Your task to perform on an android device: turn on priority inbox in the gmail app Image 0: 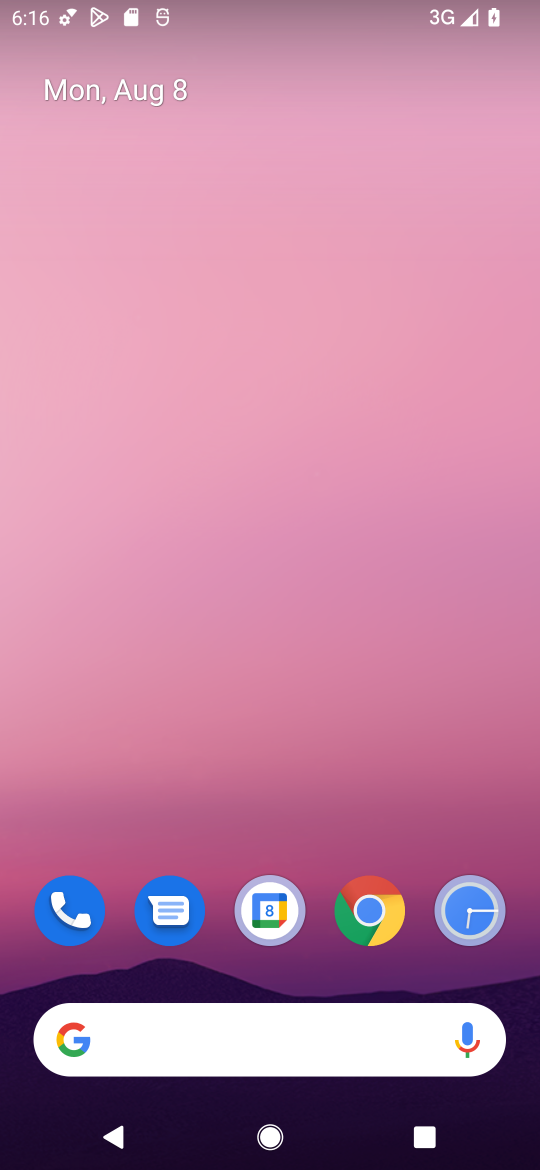
Step 0: drag from (276, 846) to (287, 83)
Your task to perform on an android device: turn on priority inbox in the gmail app Image 1: 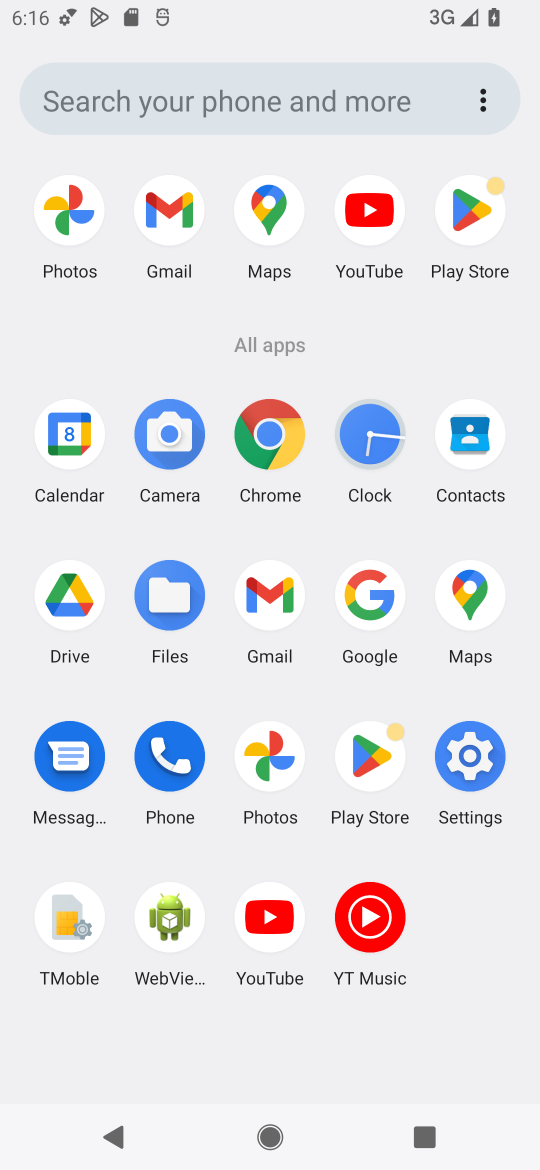
Step 1: click (157, 201)
Your task to perform on an android device: turn on priority inbox in the gmail app Image 2: 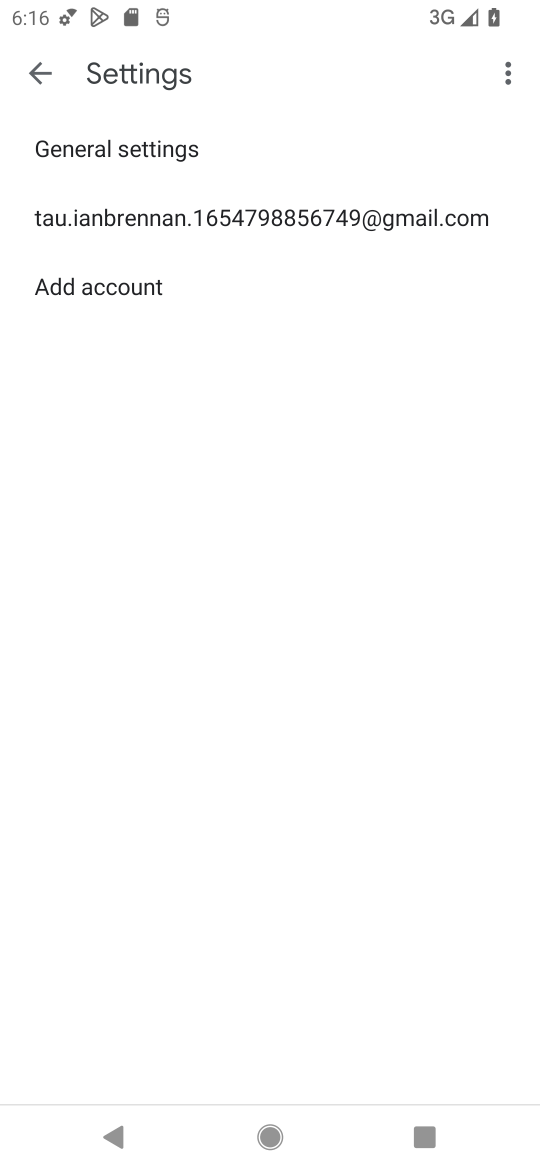
Step 2: click (39, 63)
Your task to perform on an android device: turn on priority inbox in the gmail app Image 3: 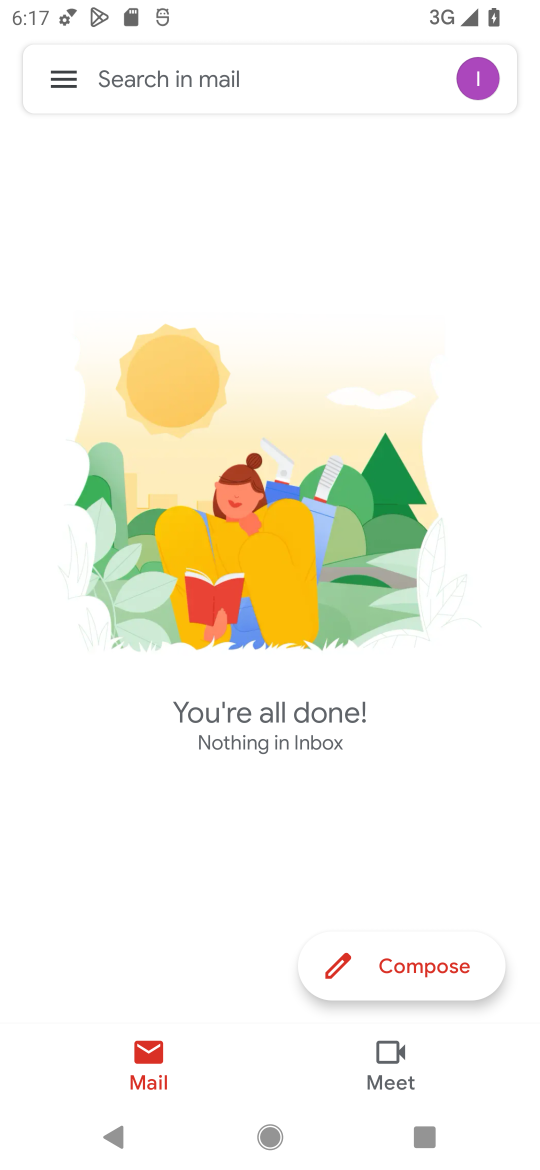
Step 3: click (74, 87)
Your task to perform on an android device: turn on priority inbox in the gmail app Image 4: 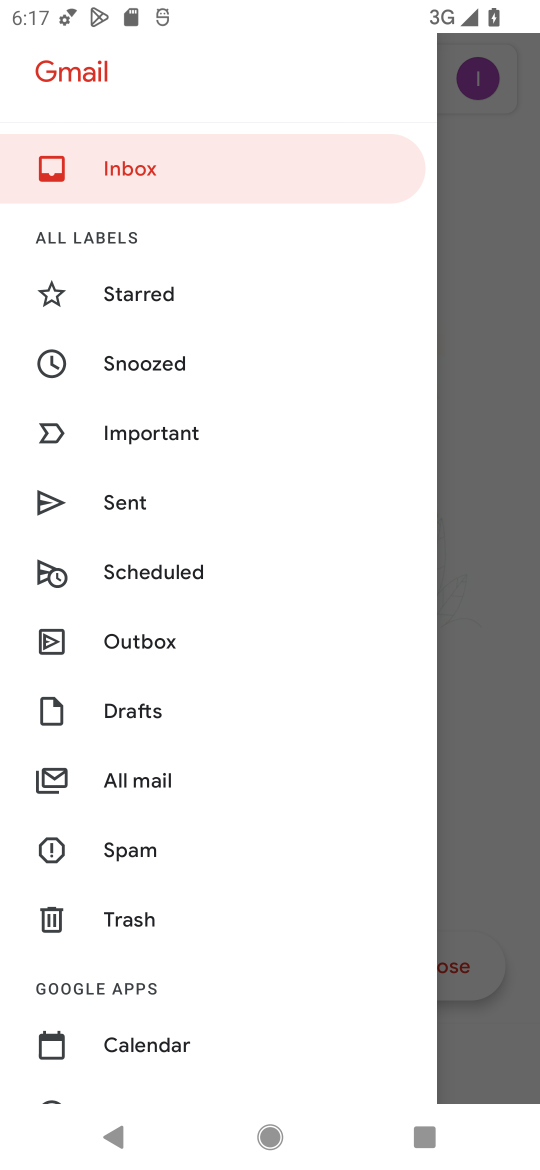
Step 4: click (117, 180)
Your task to perform on an android device: turn on priority inbox in the gmail app Image 5: 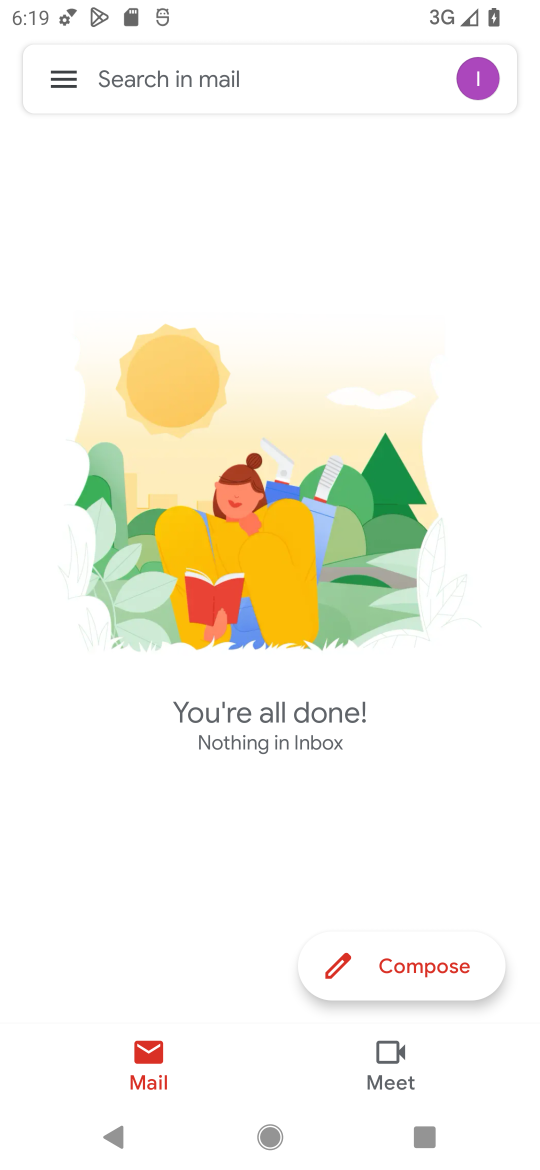
Step 5: task complete